Your task to perform on an android device: turn on translation in the chrome app Image 0: 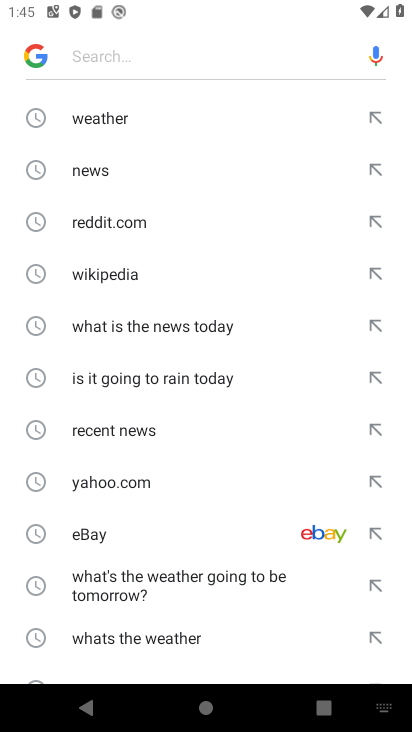
Step 0: press home button
Your task to perform on an android device: turn on translation in the chrome app Image 1: 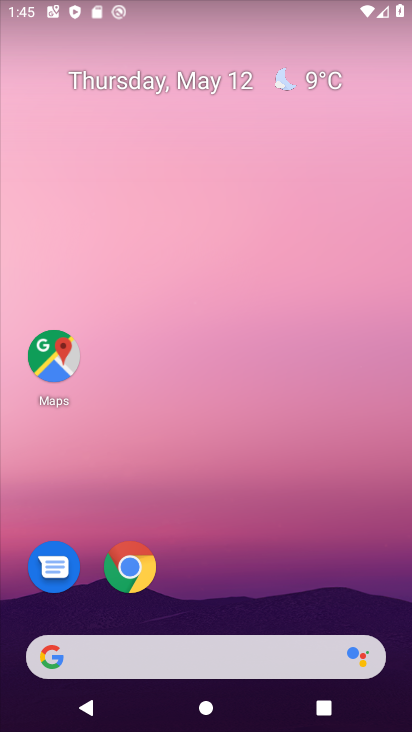
Step 1: click (127, 565)
Your task to perform on an android device: turn on translation in the chrome app Image 2: 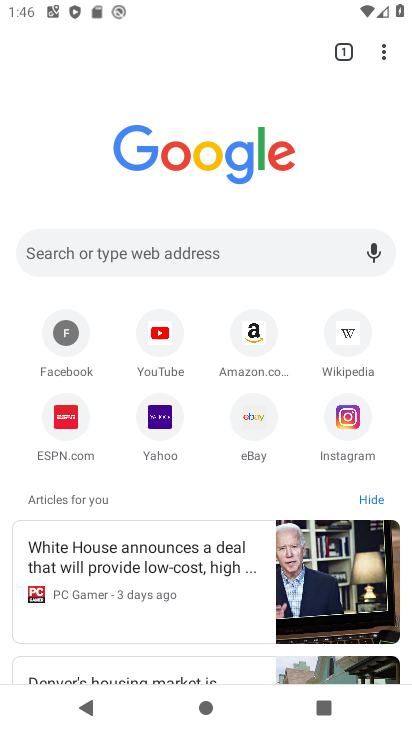
Step 2: click (384, 45)
Your task to perform on an android device: turn on translation in the chrome app Image 3: 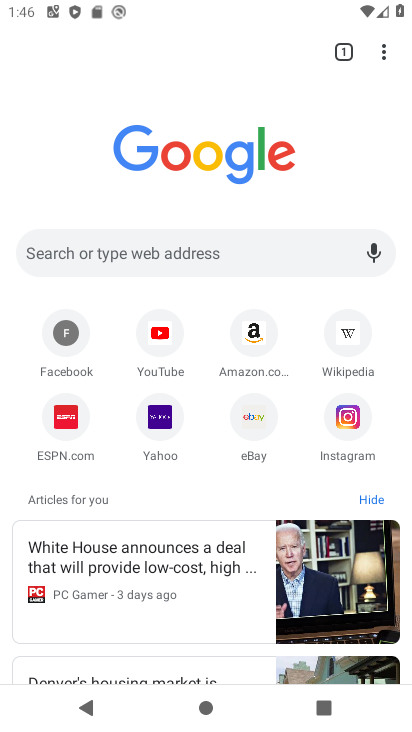
Step 3: click (383, 46)
Your task to perform on an android device: turn on translation in the chrome app Image 4: 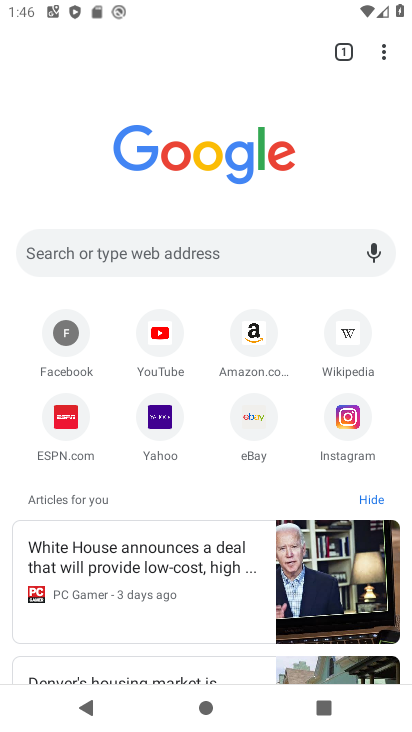
Step 4: click (387, 44)
Your task to perform on an android device: turn on translation in the chrome app Image 5: 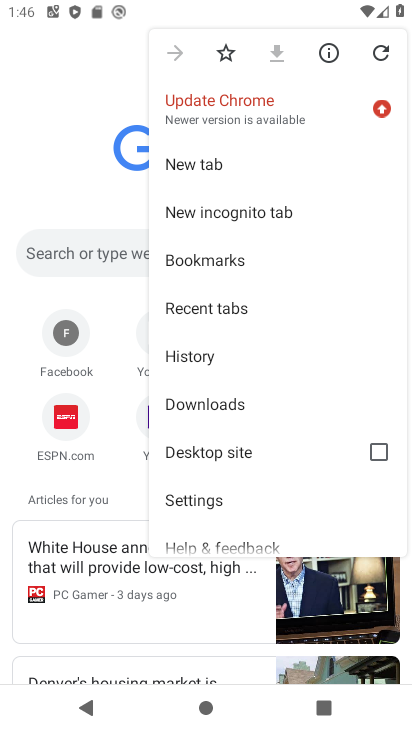
Step 5: click (248, 499)
Your task to perform on an android device: turn on translation in the chrome app Image 6: 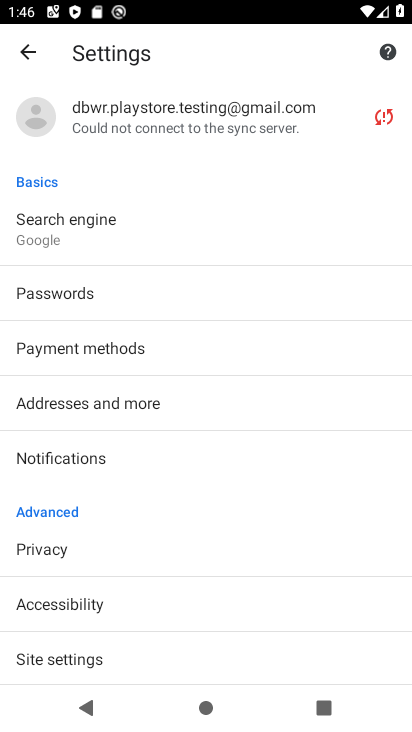
Step 6: drag from (155, 607) to (200, 219)
Your task to perform on an android device: turn on translation in the chrome app Image 7: 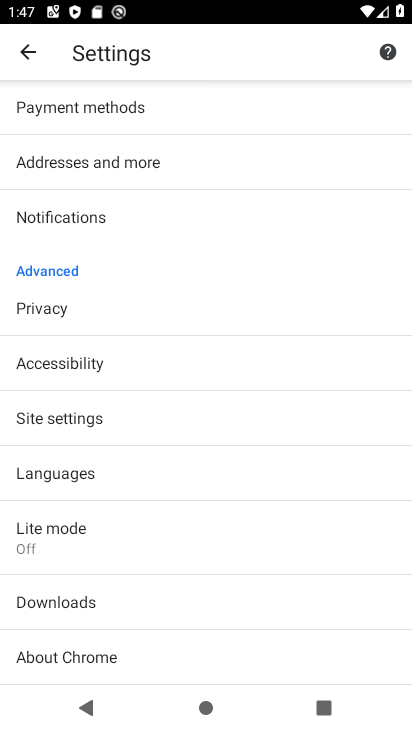
Step 7: click (98, 469)
Your task to perform on an android device: turn on translation in the chrome app Image 8: 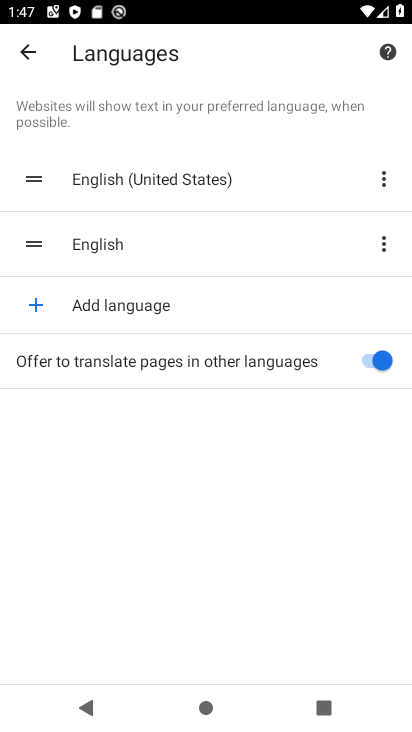
Step 8: task complete